Your task to perform on an android device: allow cookies in the chrome app Image 0: 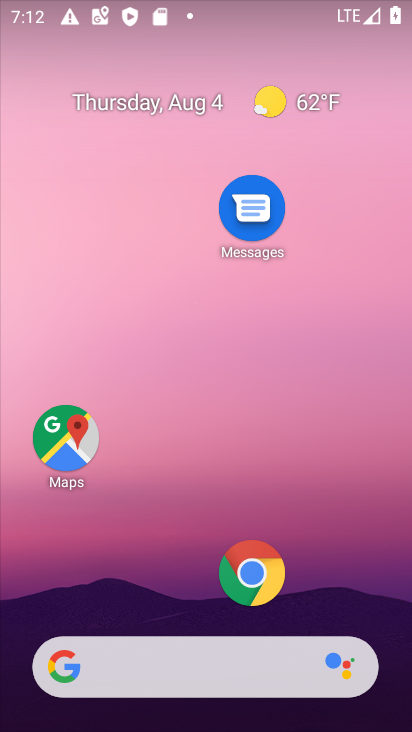
Step 0: press home button
Your task to perform on an android device: allow cookies in the chrome app Image 1: 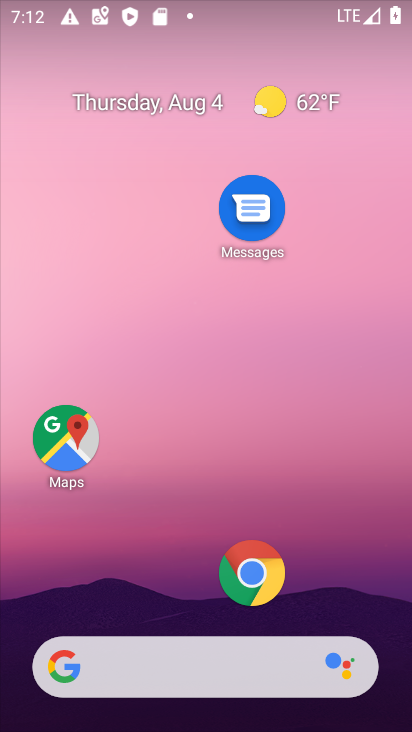
Step 1: drag from (203, 618) to (202, 135)
Your task to perform on an android device: allow cookies in the chrome app Image 2: 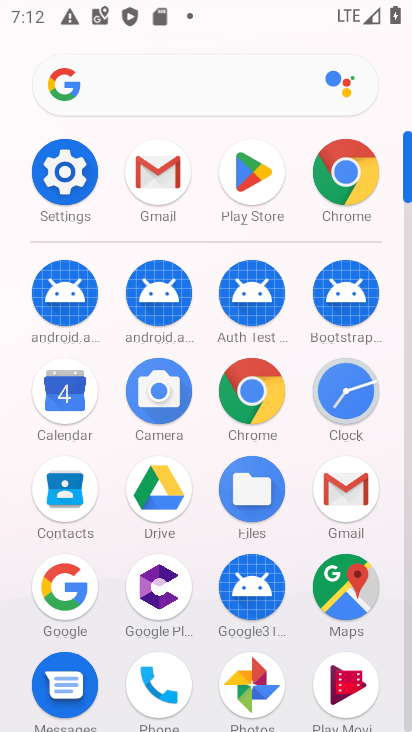
Step 2: click (336, 177)
Your task to perform on an android device: allow cookies in the chrome app Image 3: 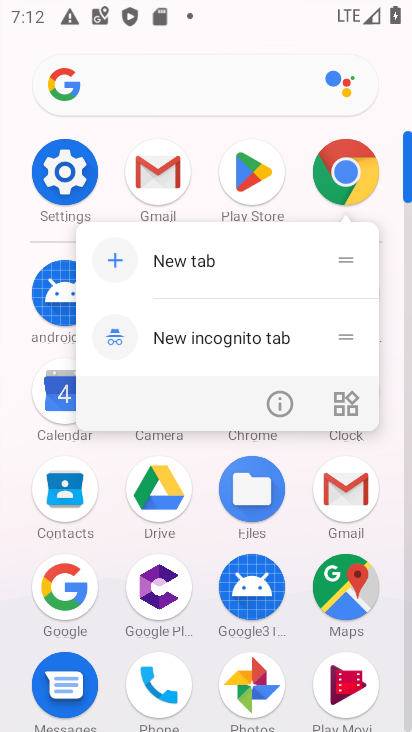
Step 3: click (338, 178)
Your task to perform on an android device: allow cookies in the chrome app Image 4: 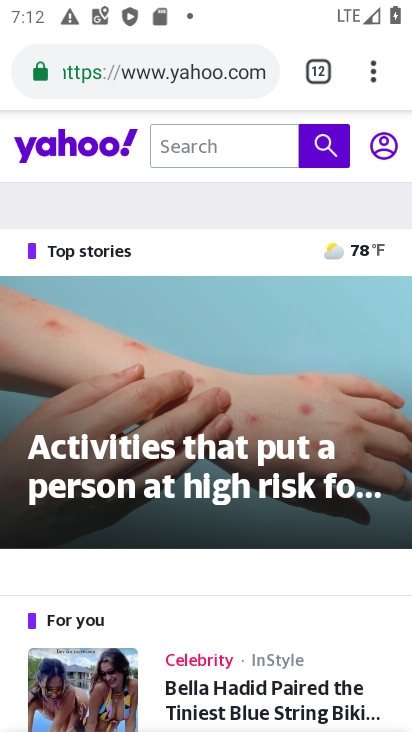
Step 4: drag from (374, 80) to (155, 569)
Your task to perform on an android device: allow cookies in the chrome app Image 5: 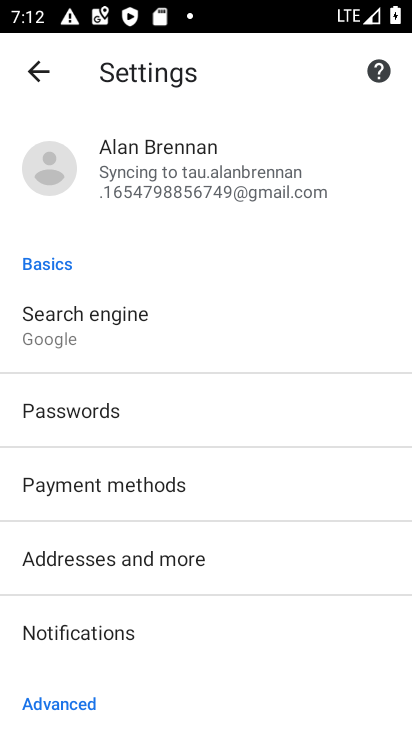
Step 5: drag from (241, 662) to (252, 385)
Your task to perform on an android device: allow cookies in the chrome app Image 6: 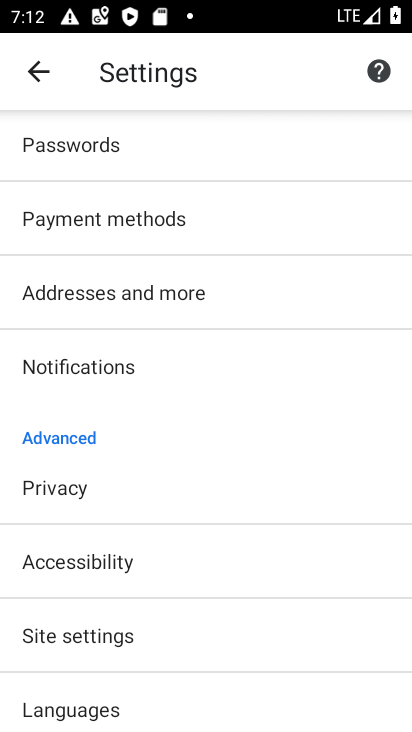
Step 6: click (99, 646)
Your task to perform on an android device: allow cookies in the chrome app Image 7: 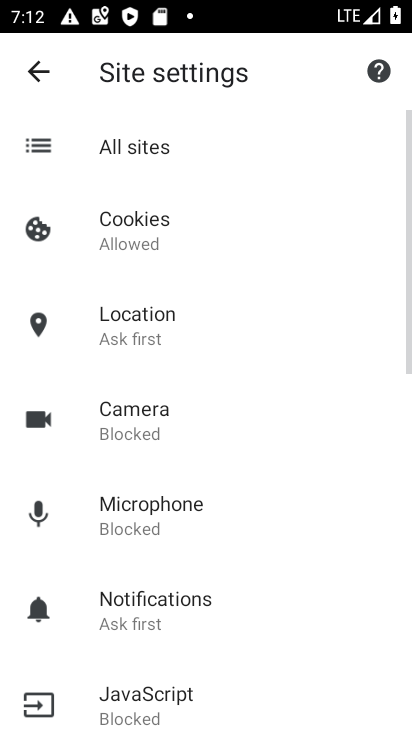
Step 7: click (136, 221)
Your task to perform on an android device: allow cookies in the chrome app Image 8: 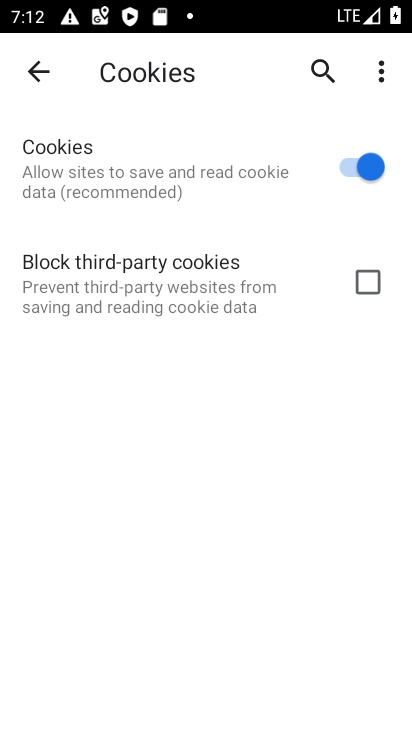
Step 8: task complete